Your task to perform on an android device: all mails in gmail Image 0: 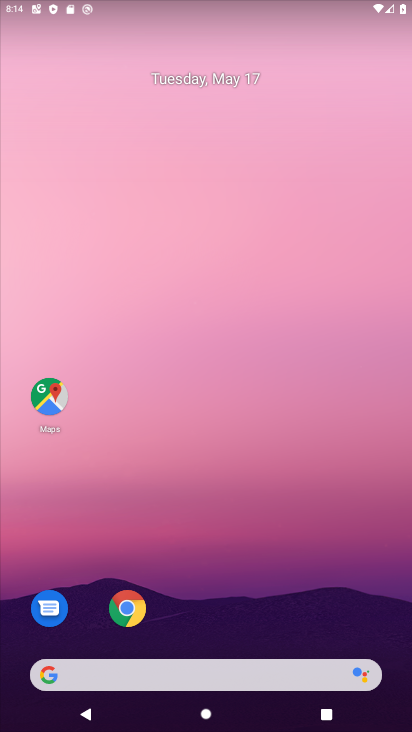
Step 0: drag from (193, 635) to (212, 240)
Your task to perform on an android device: all mails in gmail Image 1: 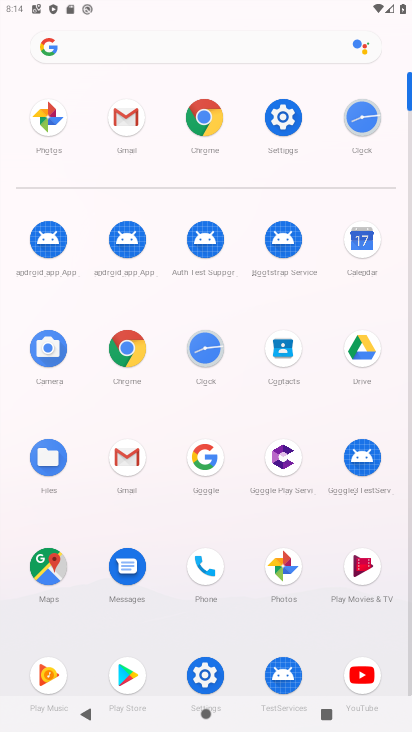
Step 1: click (139, 135)
Your task to perform on an android device: all mails in gmail Image 2: 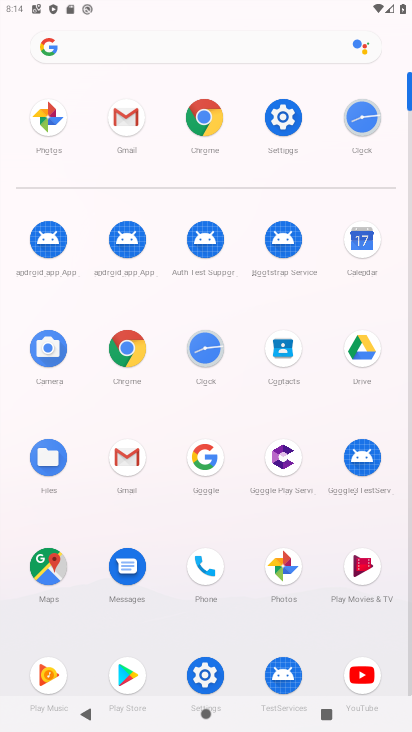
Step 2: click (139, 135)
Your task to perform on an android device: all mails in gmail Image 3: 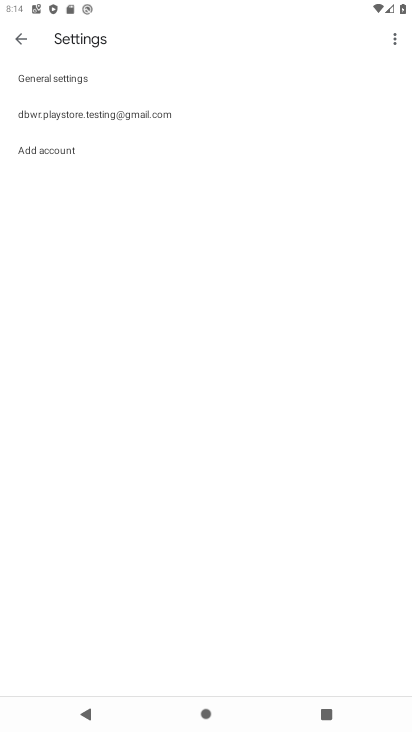
Step 3: click (24, 32)
Your task to perform on an android device: all mails in gmail Image 4: 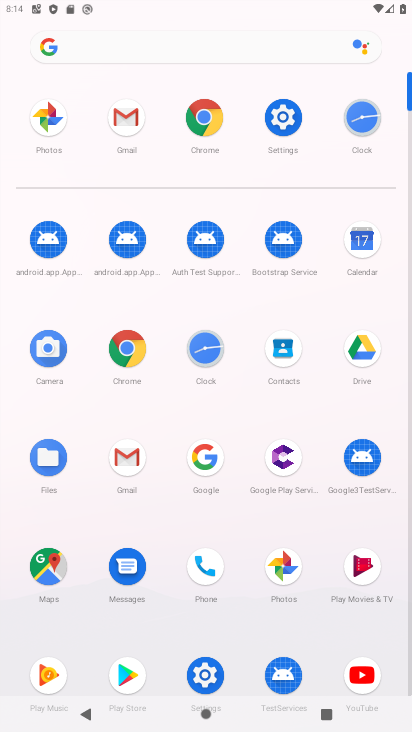
Step 4: click (124, 125)
Your task to perform on an android device: all mails in gmail Image 5: 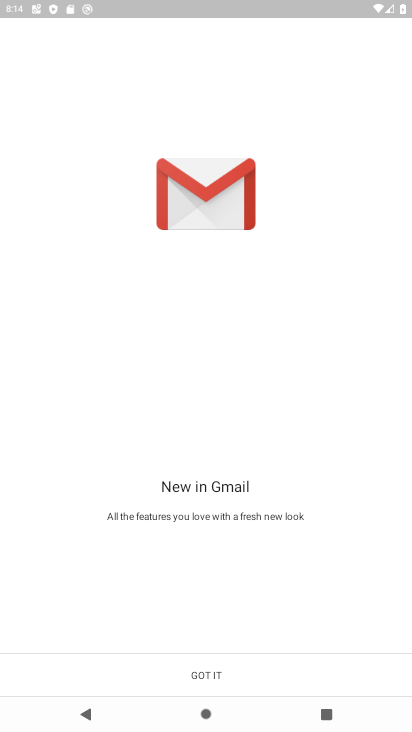
Step 5: click (168, 678)
Your task to perform on an android device: all mails in gmail Image 6: 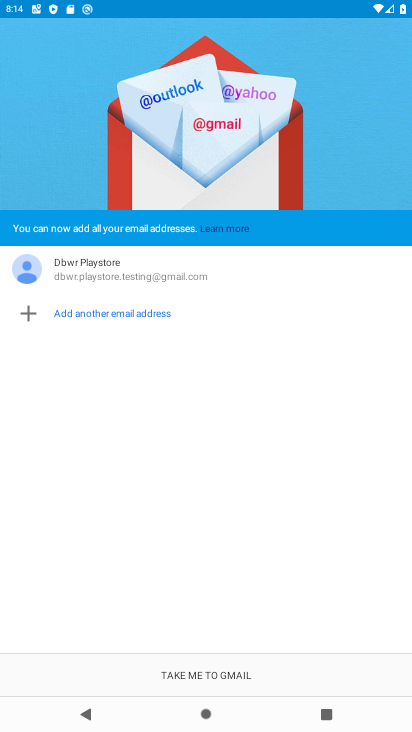
Step 6: click (168, 678)
Your task to perform on an android device: all mails in gmail Image 7: 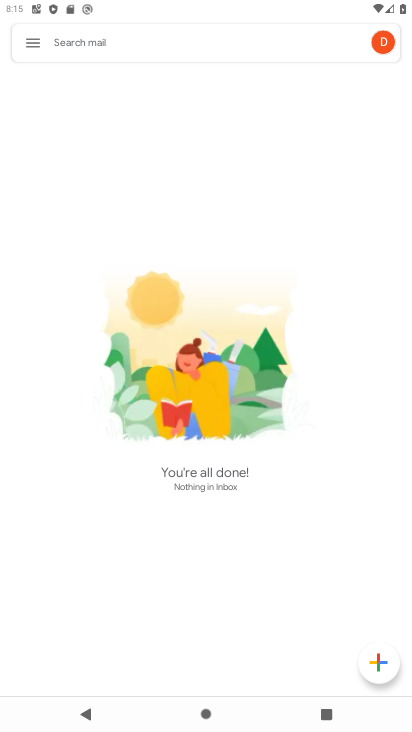
Step 7: click (22, 43)
Your task to perform on an android device: all mails in gmail Image 8: 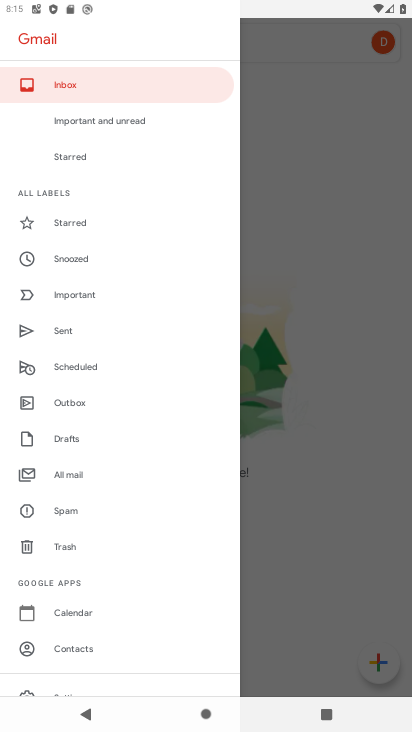
Step 8: click (81, 483)
Your task to perform on an android device: all mails in gmail Image 9: 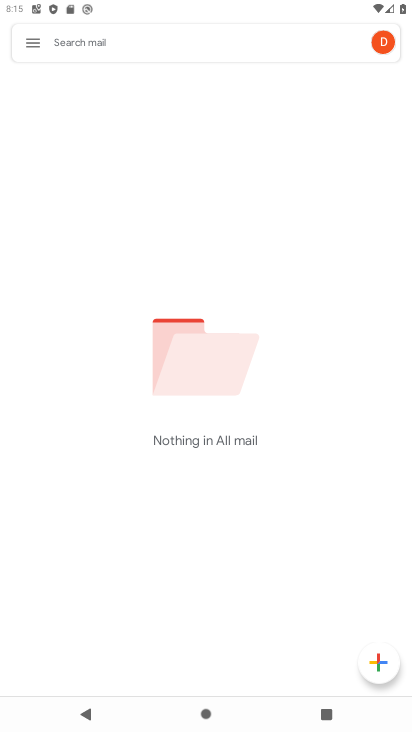
Step 9: task complete